Your task to perform on an android device: open device folders in google photos Image 0: 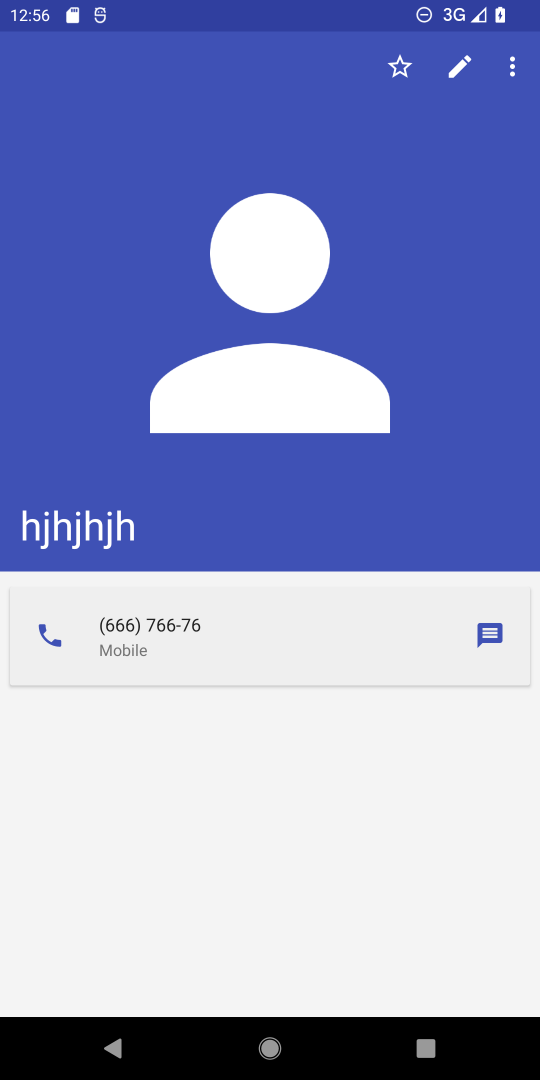
Step 0: press home button
Your task to perform on an android device: open device folders in google photos Image 1: 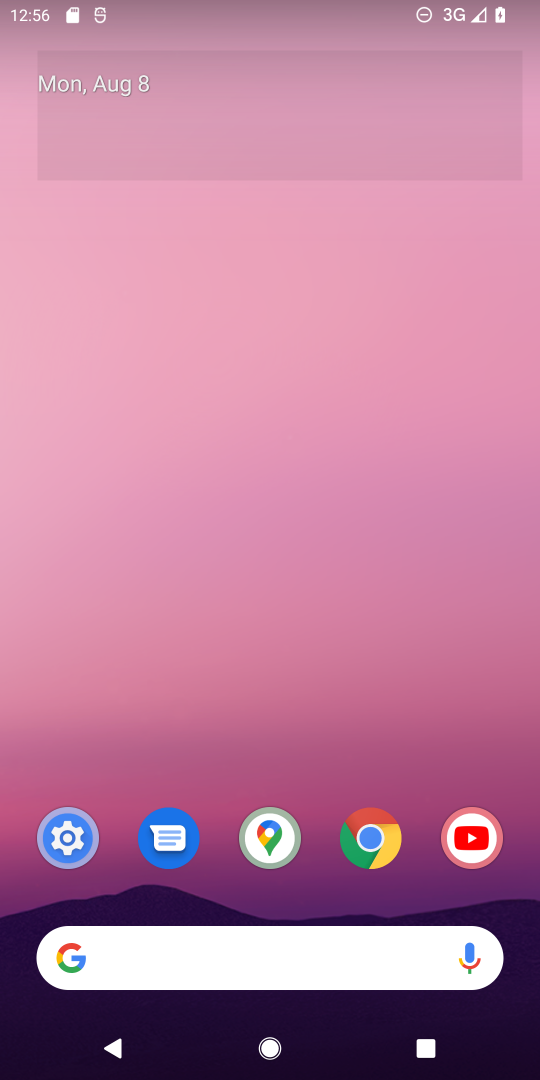
Step 1: drag from (322, 730) to (353, 26)
Your task to perform on an android device: open device folders in google photos Image 2: 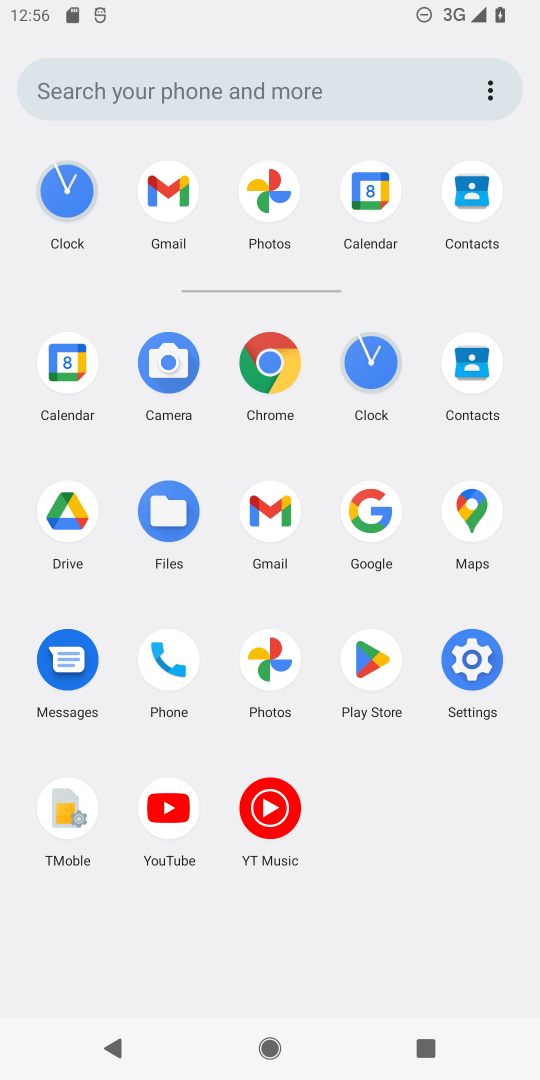
Step 2: click (269, 653)
Your task to perform on an android device: open device folders in google photos Image 3: 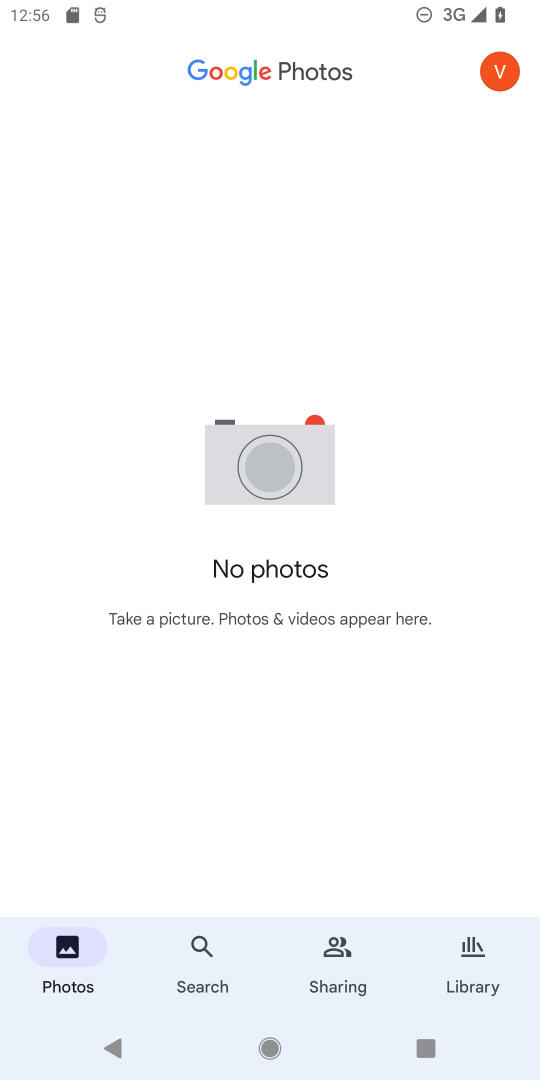
Step 3: click (231, 75)
Your task to perform on an android device: open device folders in google photos Image 4: 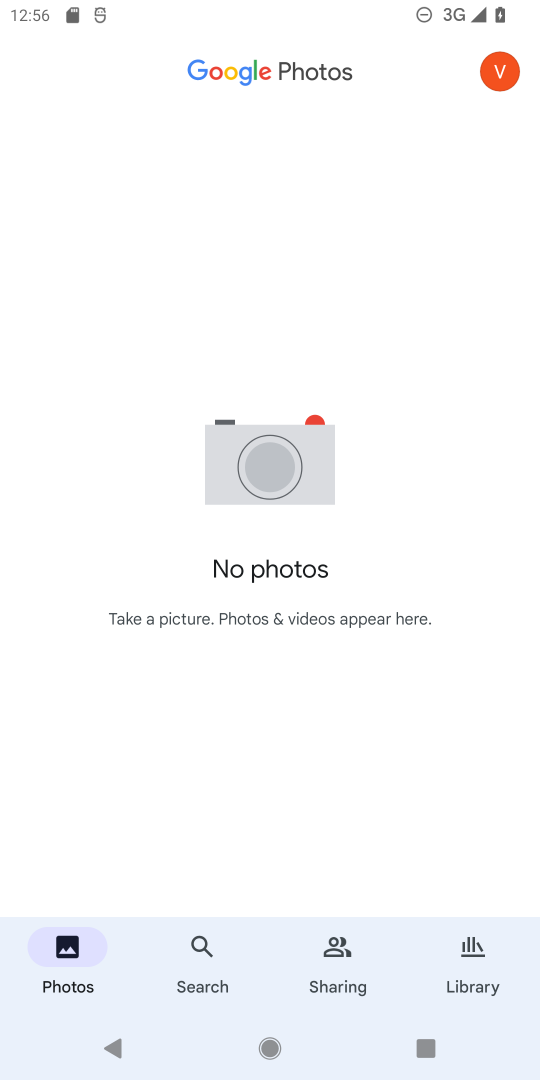
Step 4: click (188, 933)
Your task to perform on an android device: open device folders in google photos Image 5: 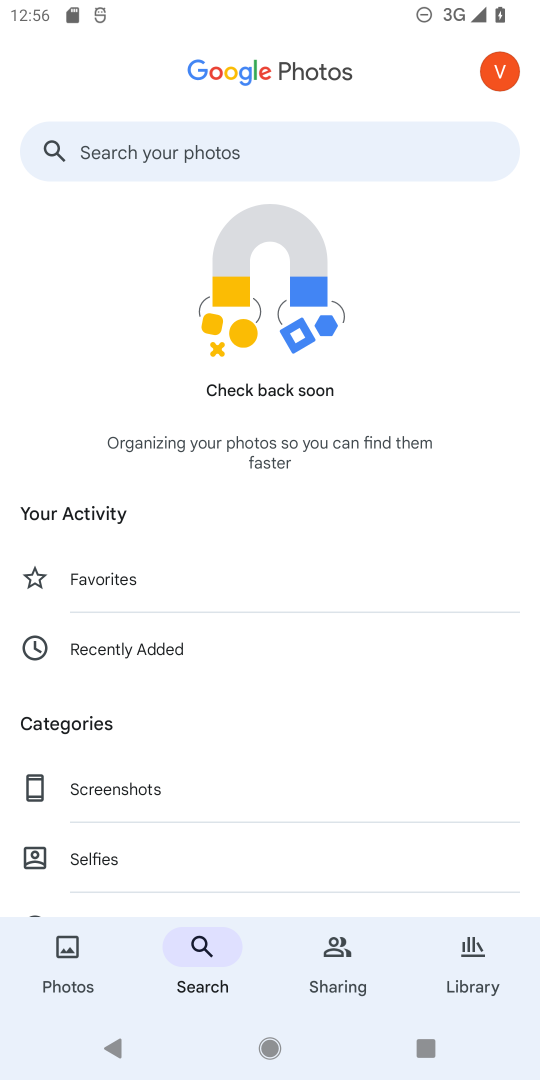
Step 5: click (185, 149)
Your task to perform on an android device: open device folders in google photos Image 6: 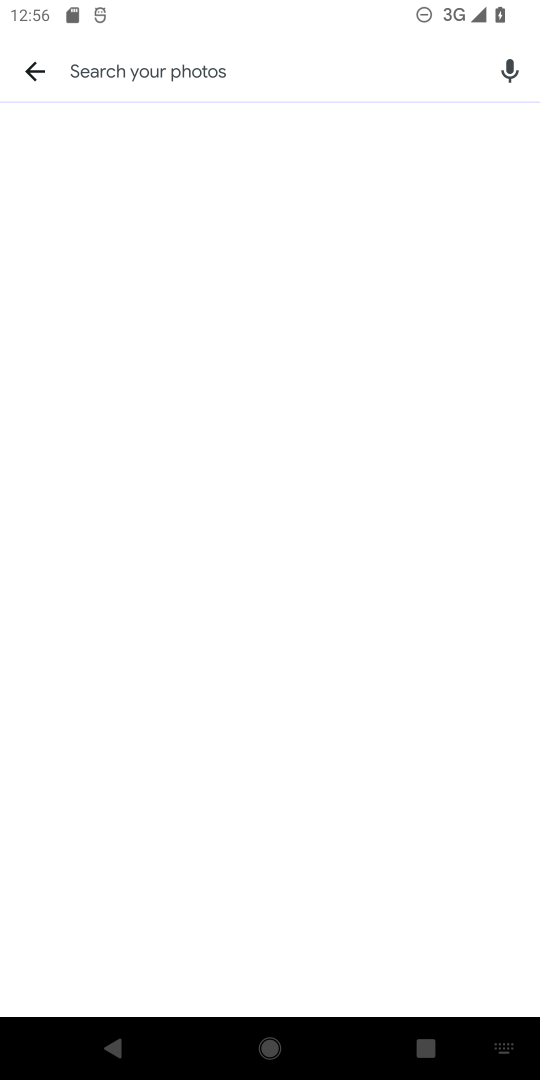
Step 6: type "device folders"
Your task to perform on an android device: open device folders in google photos Image 7: 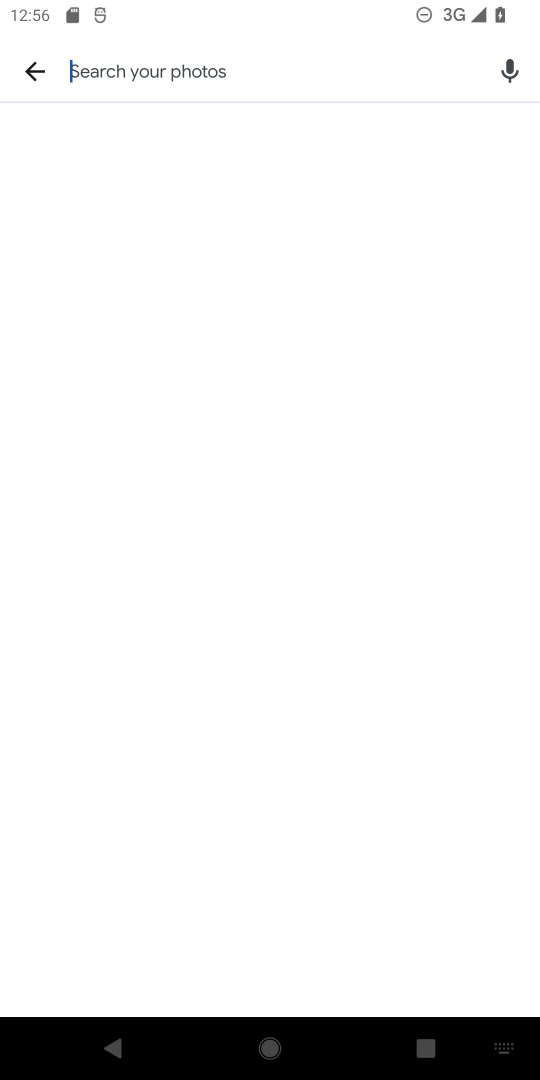
Step 7: click (125, 65)
Your task to perform on an android device: open device folders in google photos Image 8: 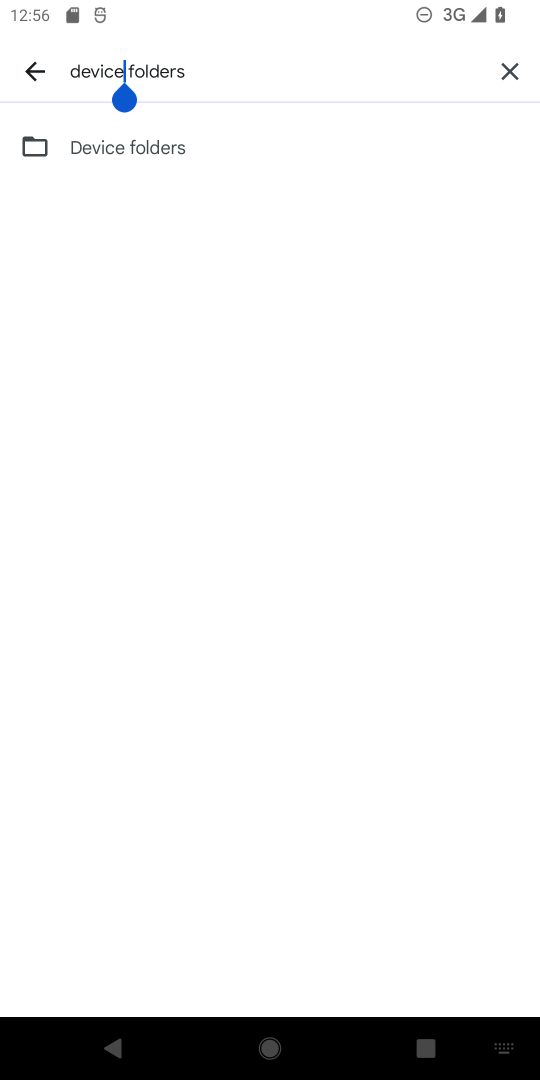
Step 8: click (112, 150)
Your task to perform on an android device: open device folders in google photos Image 9: 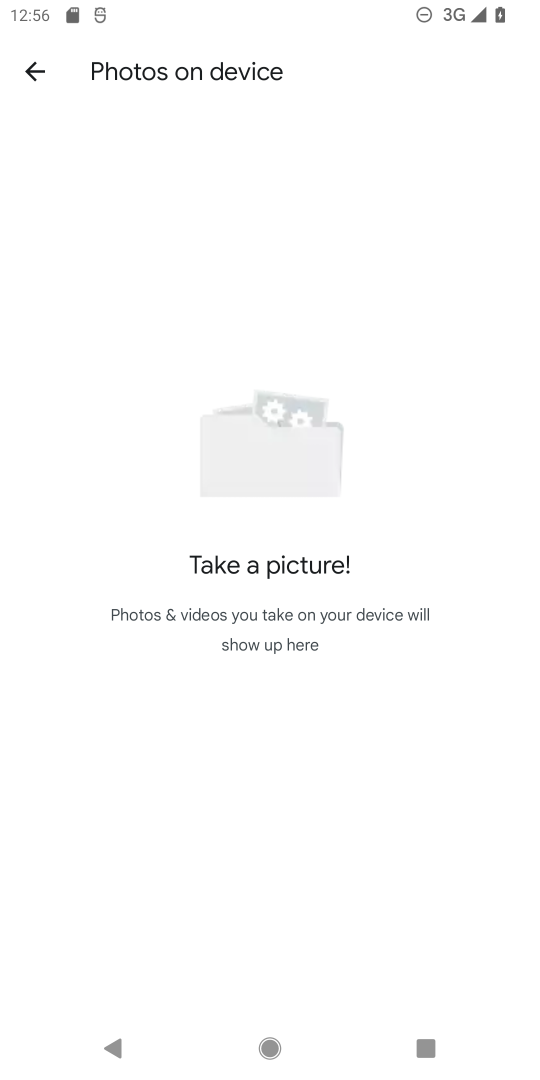
Step 9: task complete